Your task to perform on an android device: Open display settings Image 0: 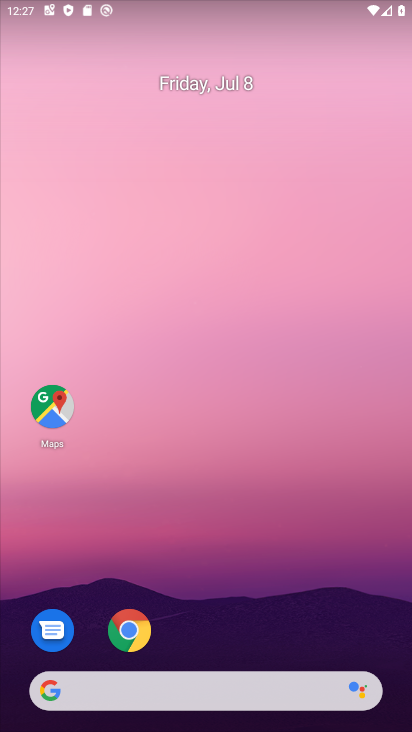
Step 0: drag from (388, 659) to (197, 65)
Your task to perform on an android device: Open display settings Image 1: 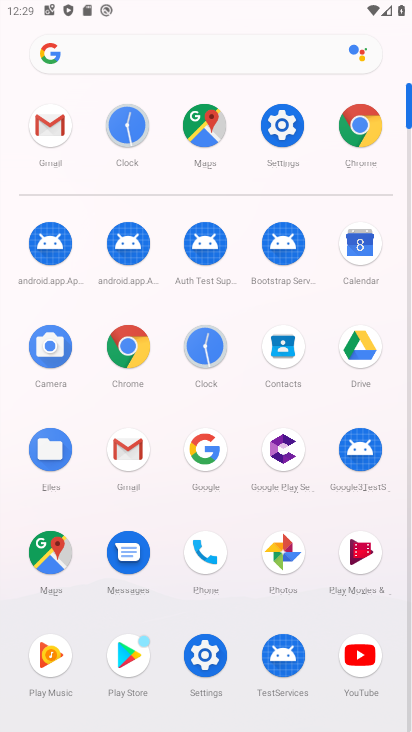
Step 1: click (205, 670)
Your task to perform on an android device: Open display settings Image 2: 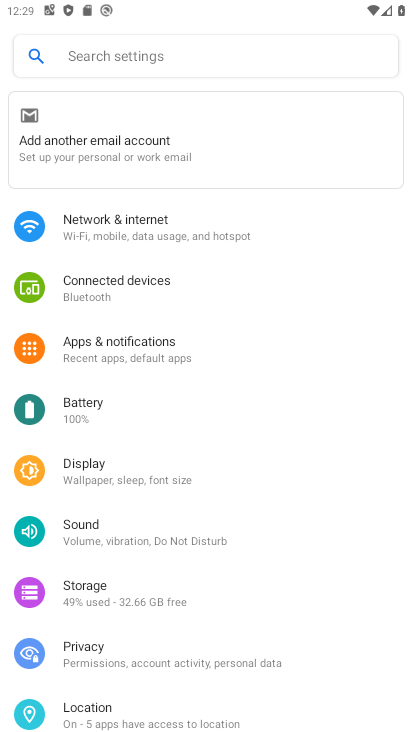
Step 2: click (106, 470)
Your task to perform on an android device: Open display settings Image 3: 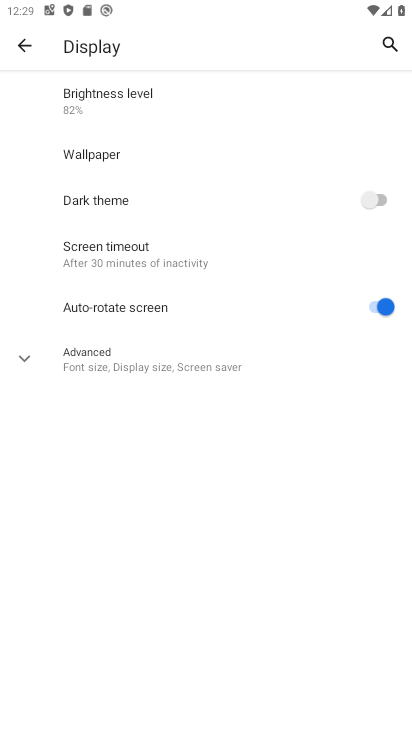
Step 3: task complete